Your task to perform on an android device: clear all cookies in the chrome app Image 0: 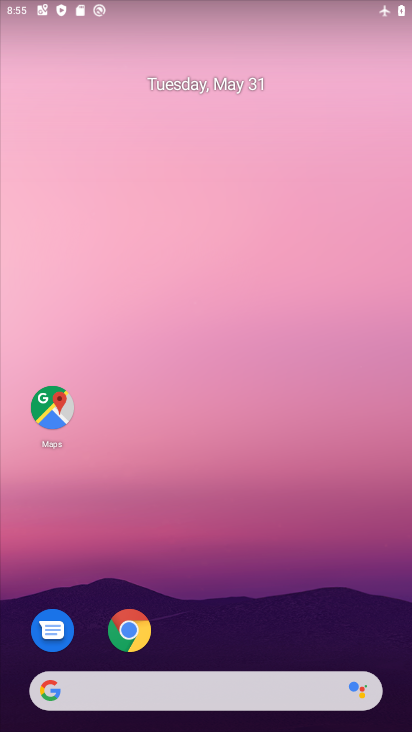
Step 0: drag from (201, 663) to (202, 242)
Your task to perform on an android device: clear all cookies in the chrome app Image 1: 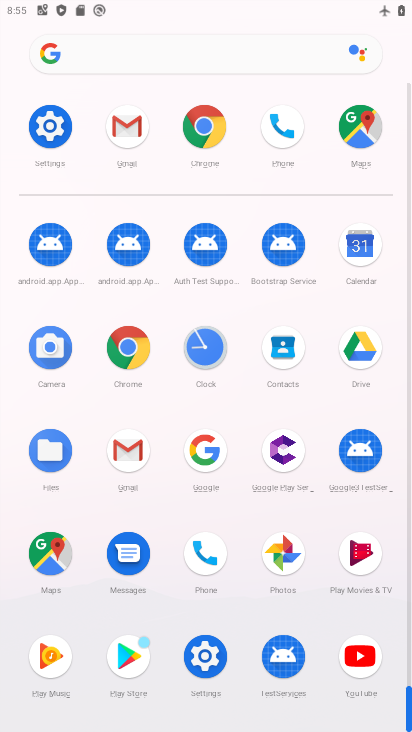
Step 1: click (119, 333)
Your task to perform on an android device: clear all cookies in the chrome app Image 2: 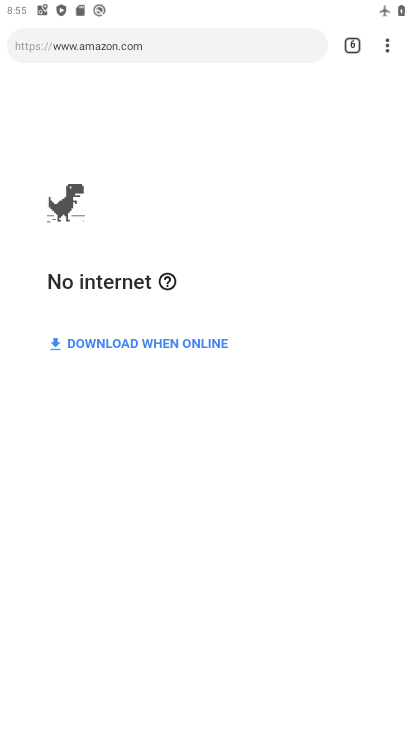
Step 2: click (383, 43)
Your task to perform on an android device: clear all cookies in the chrome app Image 3: 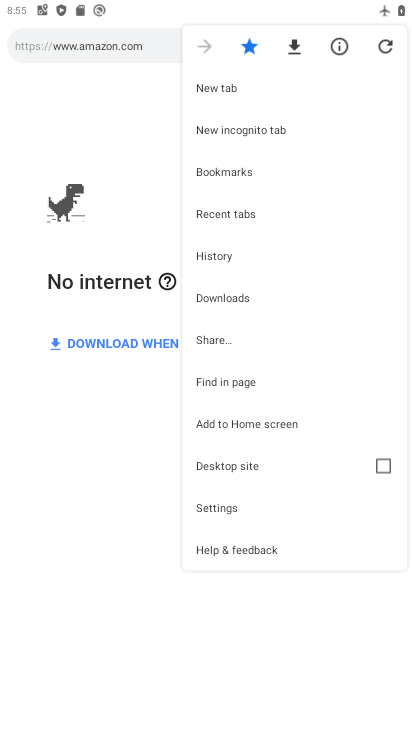
Step 3: click (248, 502)
Your task to perform on an android device: clear all cookies in the chrome app Image 4: 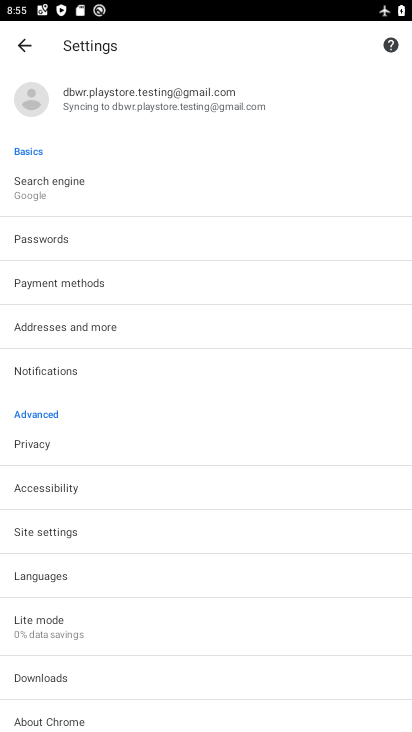
Step 4: click (118, 456)
Your task to perform on an android device: clear all cookies in the chrome app Image 5: 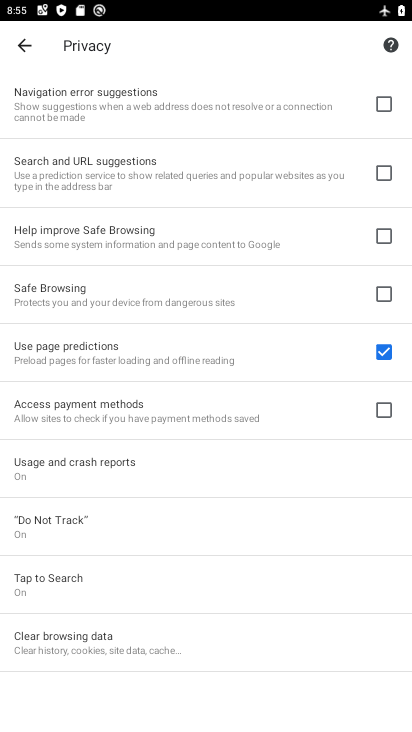
Step 5: click (90, 658)
Your task to perform on an android device: clear all cookies in the chrome app Image 6: 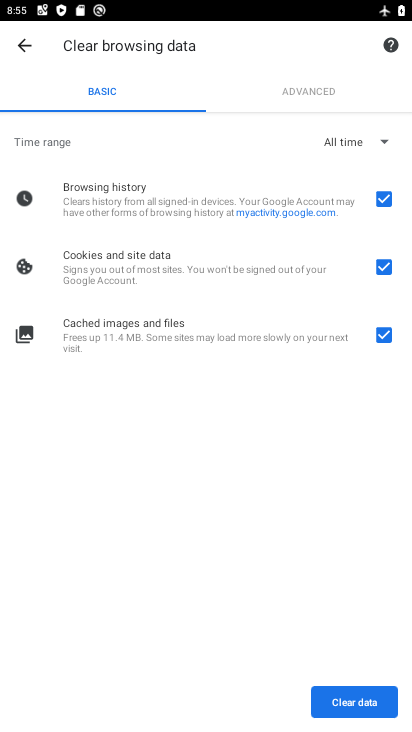
Step 6: click (364, 698)
Your task to perform on an android device: clear all cookies in the chrome app Image 7: 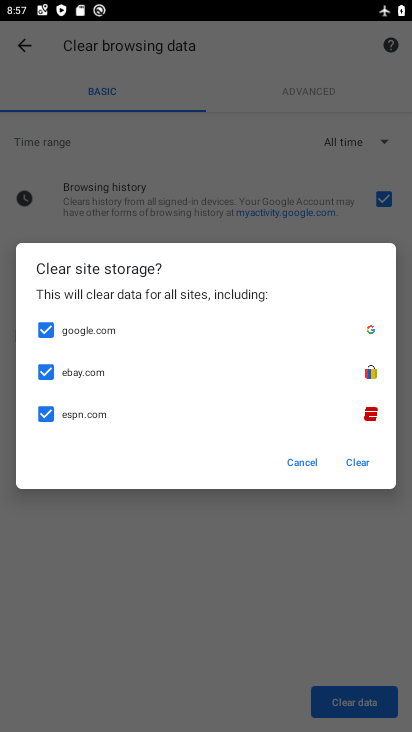
Step 7: task complete